Your task to perform on an android device: Find coffee shops on Maps Image 0: 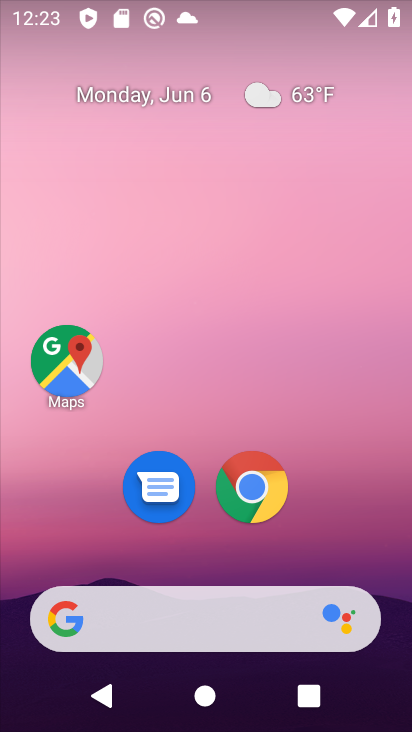
Step 0: click (67, 357)
Your task to perform on an android device: Find coffee shops on Maps Image 1: 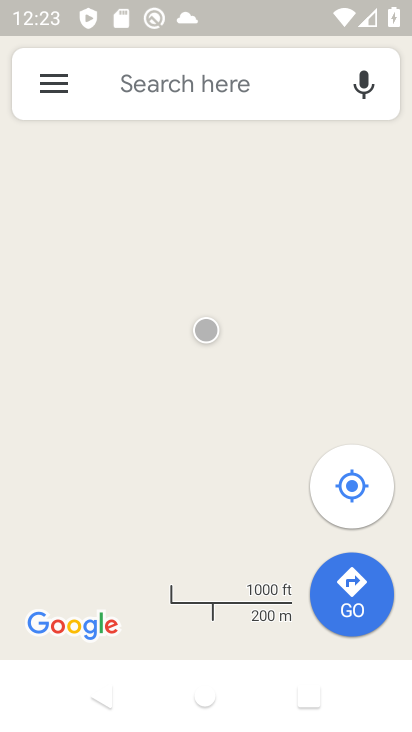
Step 1: click (169, 84)
Your task to perform on an android device: Find coffee shops on Maps Image 2: 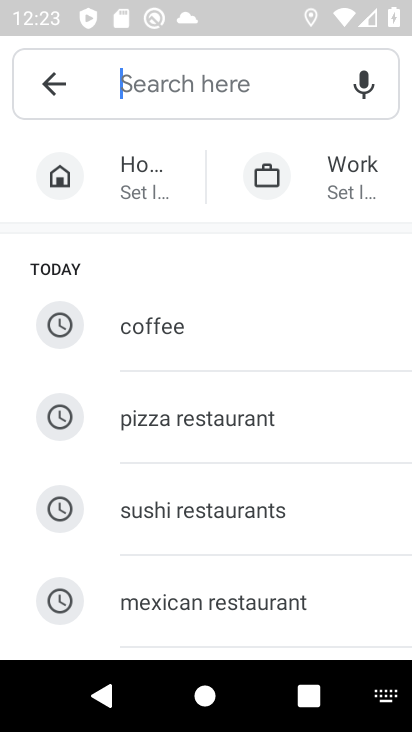
Step 2: type "coffee shop"
Your task to perform on an android device: Find coffee shops on Maps Image 3: 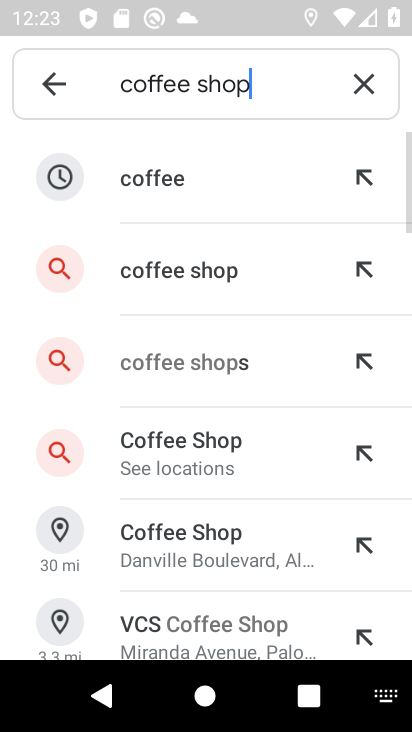
Step 3: click (184, 264)
Your task to perform on an android device: Find coffee shops on Maps Image 4: 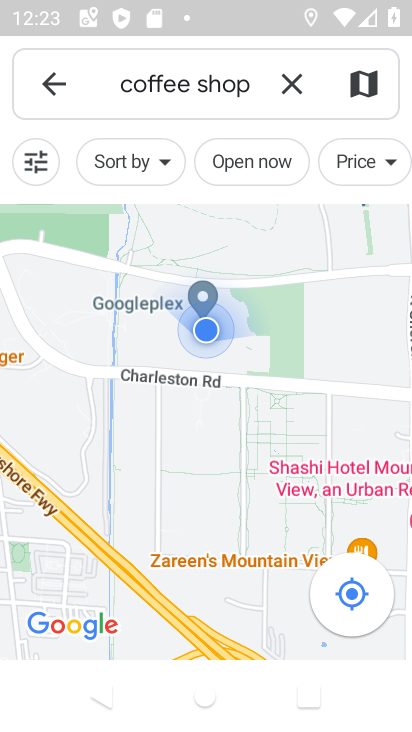
Step 4: click (276, 301)
Your task to perform on an android device: Find coffee shops on Maps Image 5: 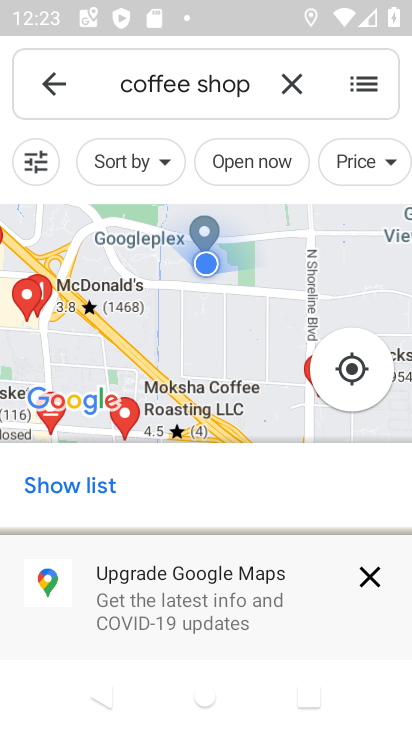
Step 5: click (367, 574)
Your task to perform on an android device: Find coffee shops on Maps Image 6: 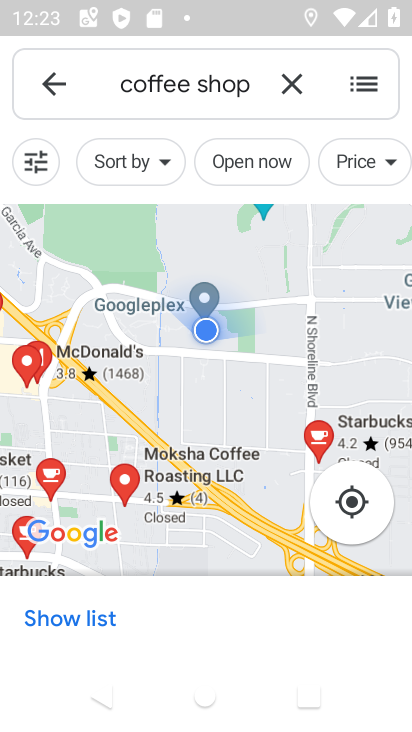
Step 6: task complete